Your task to perform on an android device: see tabs open on other devices in the chrome app Image 0: 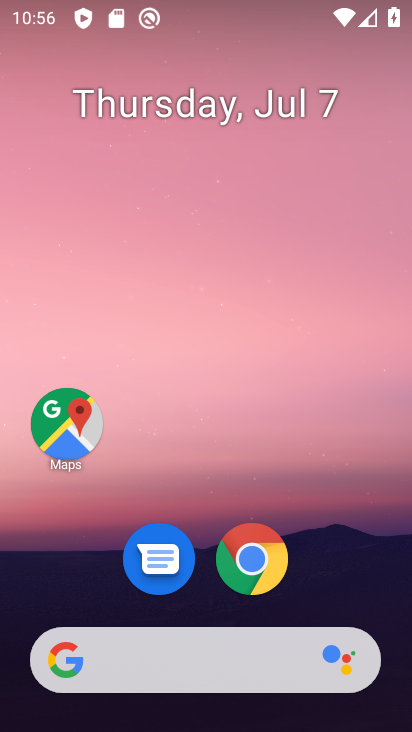
Step 0: drag from (366, 559) to (350, 358)
Your task to perform on an android device: see tabs open on other devices in the chrome app Image 1: 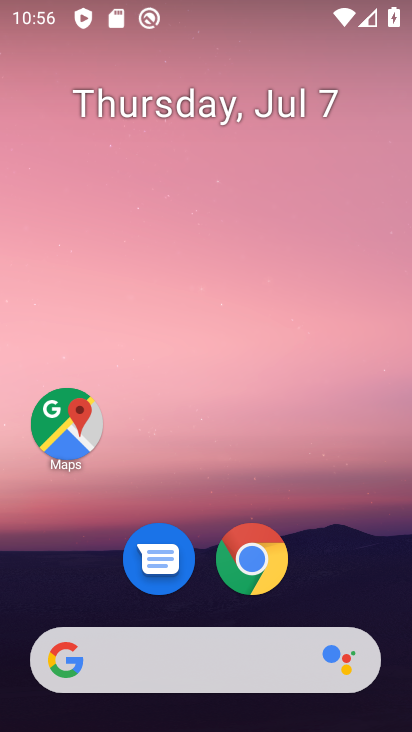
Step 1: drag from (363, 545) to (340, 77)
Your task to perform on an android device: see tabs open on other devices in the chrome app Image 2: 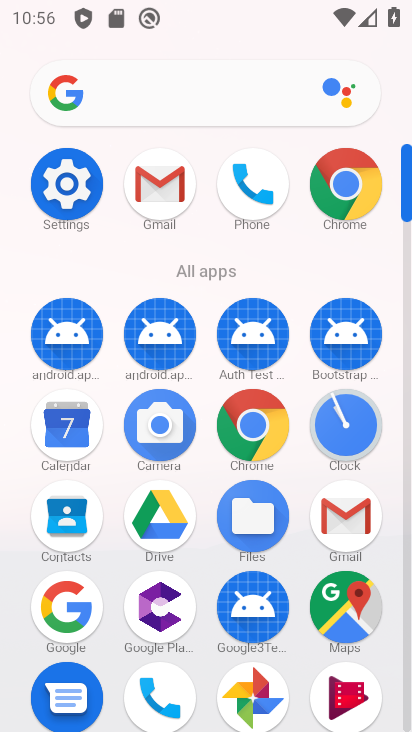
Step 2: click (276, 425)
Your task to perform on an android device: see tabs open on other devices in the chrome app Image 3: 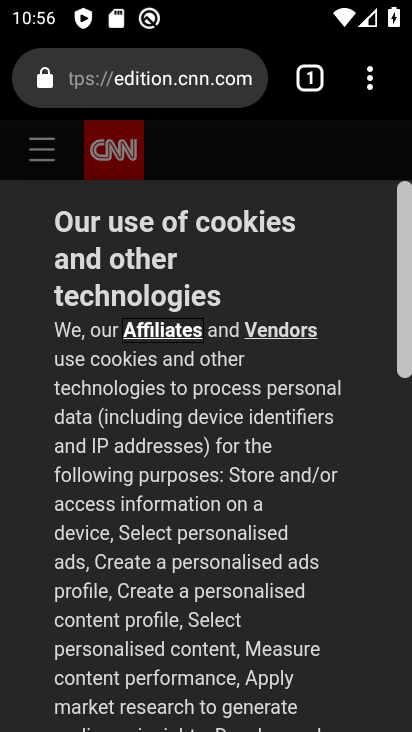
Step 3: click (374, 84)
Your task to perform on an android device: see tabs open on other devices in the chrome app Image 4: 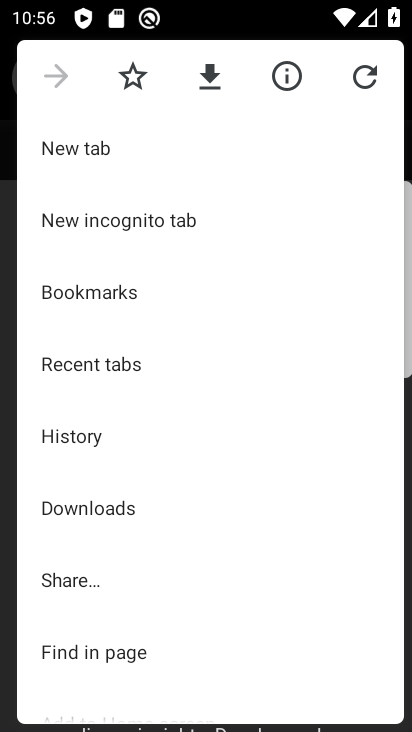
Step 4: drag from (332, 459) to (312, 330)
Your task to perform on an android device: see tabs open on other devices in the chrome app Image 5: 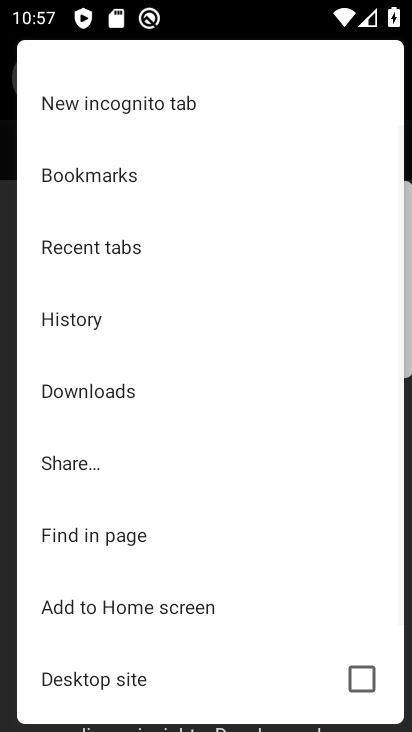
Step 5: drag from (313, 488) to (296, 360)
Your task to perform on an android device: see tabs open on other devices in the chrome app Image 6: 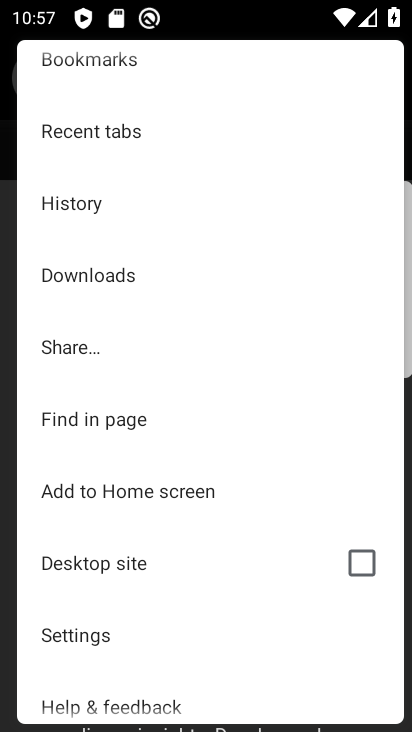
Step 6: click (152, 136)
Your task to perform on an android device: see tabs open on other devices in the chrome app Image 7: 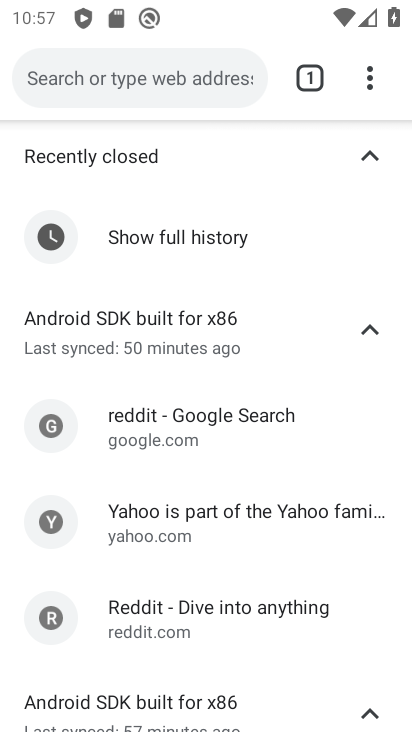
Step 7: click (313, 76)
Your task to perform on an android device: see tabs open on other devices in the chrome app Image 8: 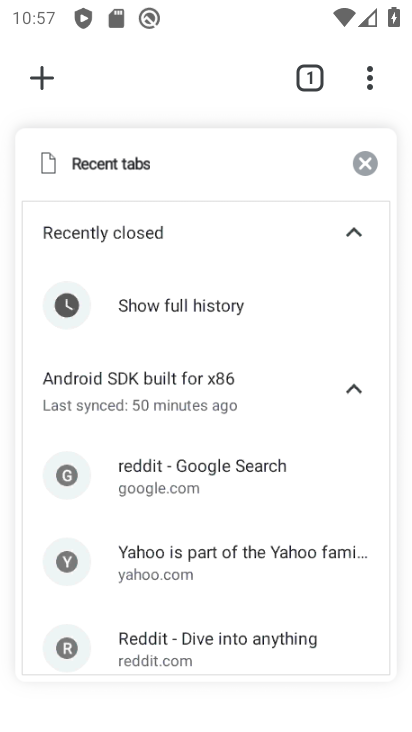
Step 8: task complete